Your task to perform on an android device: change the clock display to digital Image 0: 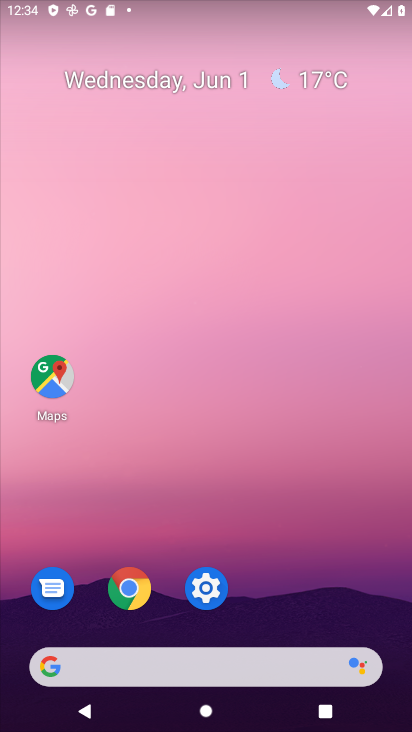
Step 0: drag from (235, 693) to (229, 346)
Your task to perform on an android device: change the clock display to digital Image 1: 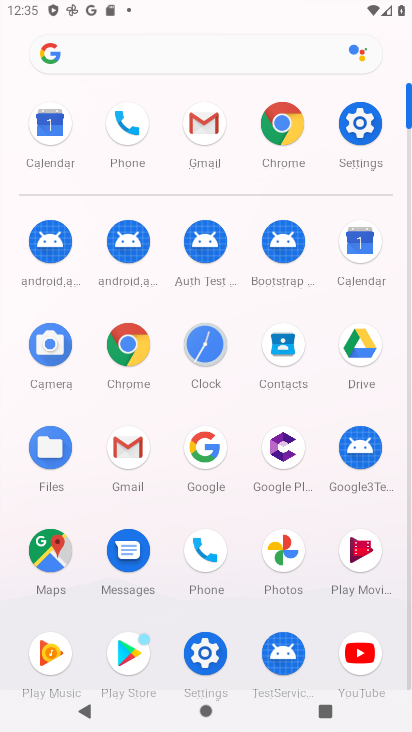
Step 1: click (202, 345)
Your task to perform on an android device: change the clock display to digital Image 2: 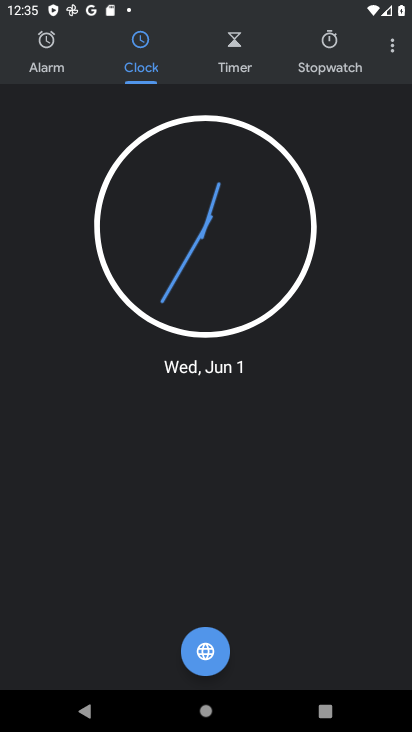
Step 2: click (393, 49)
Your task to perform on an android device: change the clock display to digital Image 3: 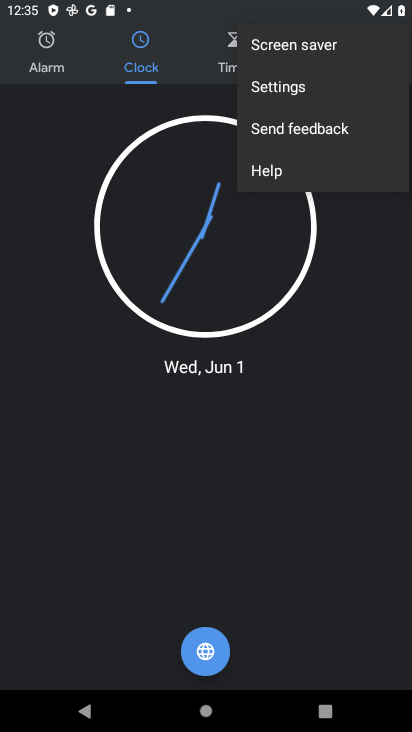
Step 3: click (298, 91)
Your task to perform on an android device: change the clock display to digital Image 4: 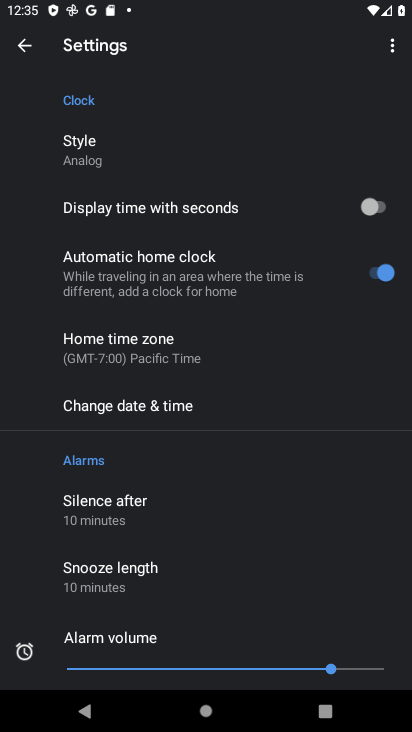
Step 4: click (123, 142)
Your task to perform on an android device: change the clock display to digital Image 5: 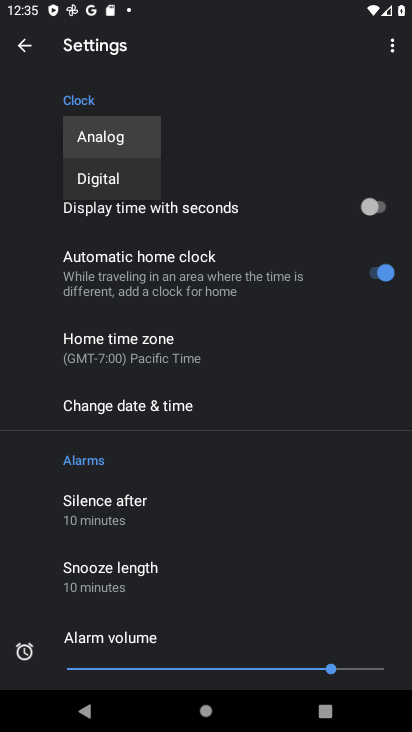
Step 5: click (101, 178)
Your task to perform on an android device: change the clock display to digital Image 6: 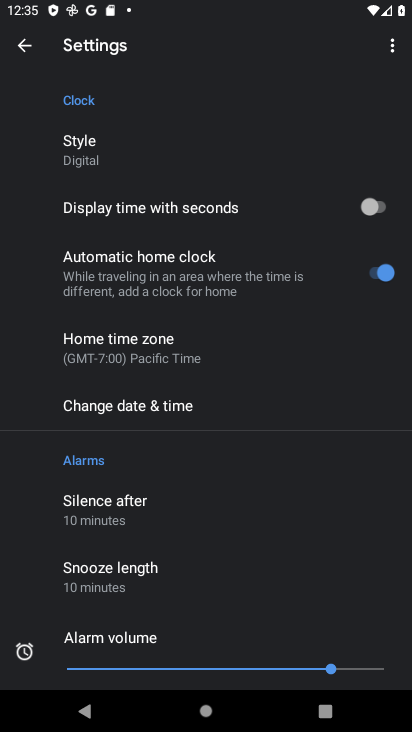
Step 6: task complete